Your task to perform on an android device: Go to wifi settings Image 0: 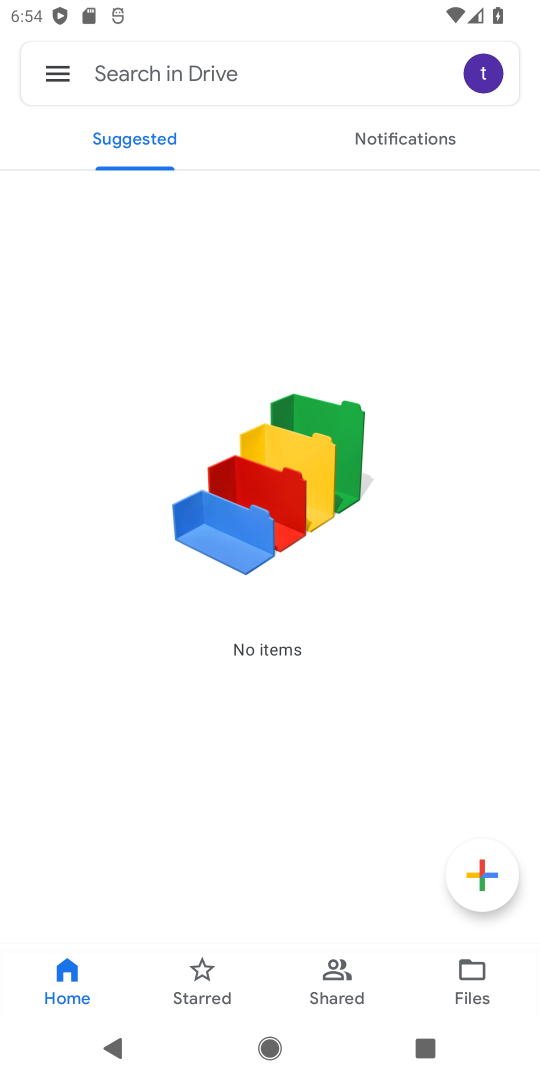
Step 0: press home button
Your task to perform on an android device: Go to wifi settings Image 1: 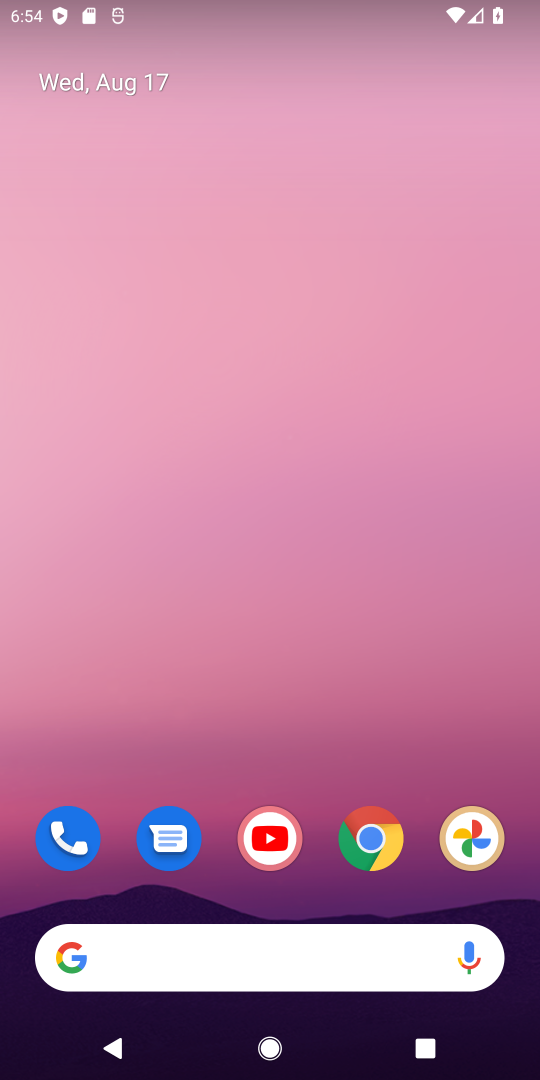
Step 1: drag from (311, 862) to (363, 226)
Your task to perform on an android device: Go to wifi settings Image 2: 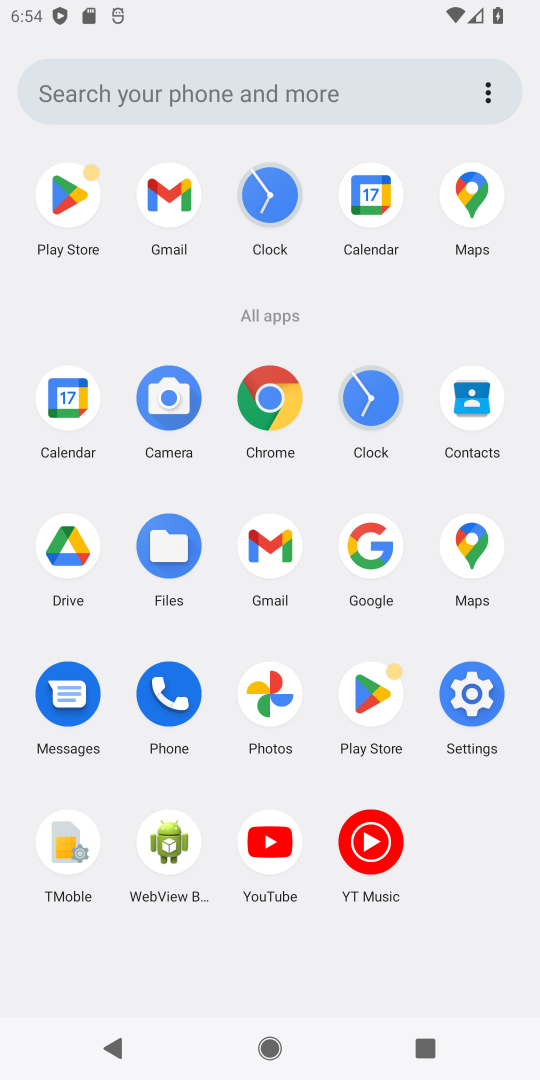
Step 2: click (499, 696)
Your task to perform on an android device: Go to wifi settings Image 3: 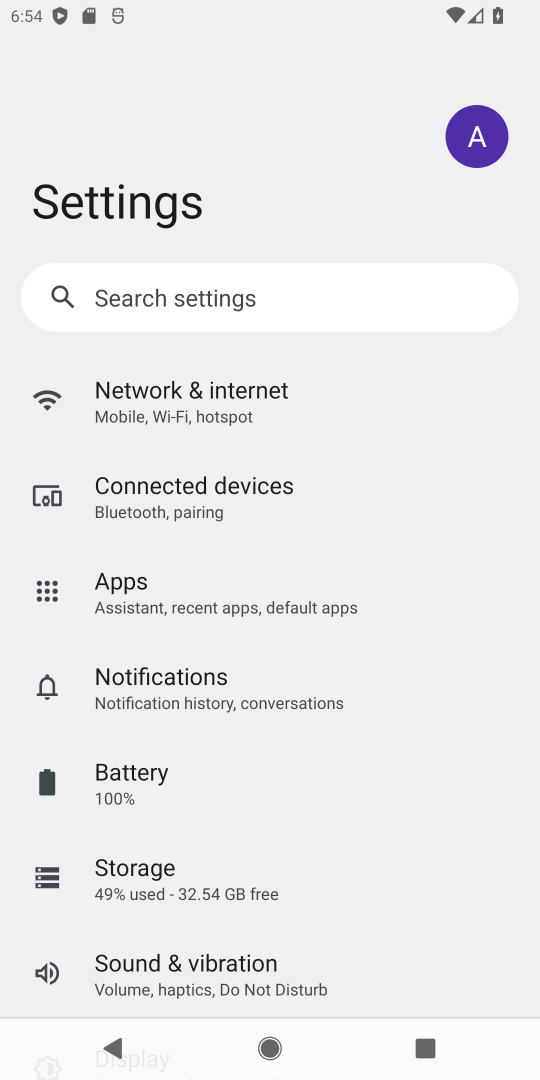
Step 3: click (381, 399)
Your task to perform on an android device: Go to wifi settings Image 4: 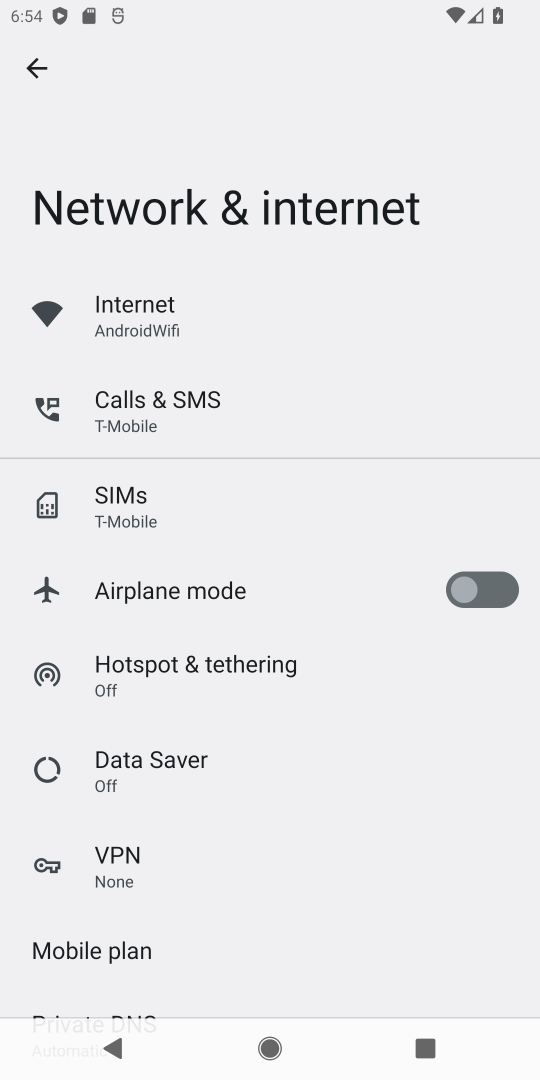
Step 4: task complete